Your task to perform on an android device: Open settings Image 0: 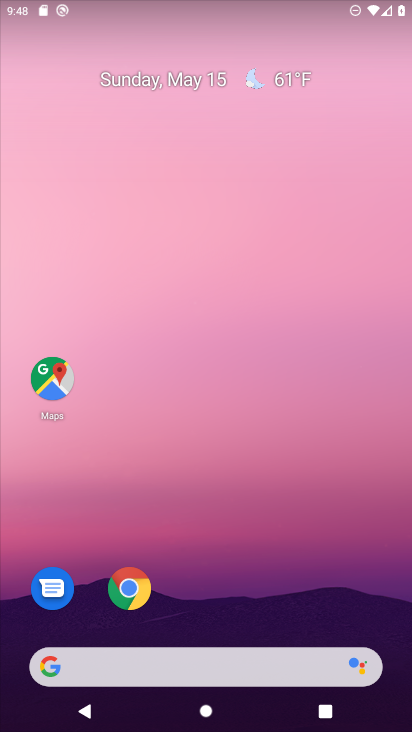
Step 0: drag from (200, 591) to (250, 393)
Your task to perform on an android device: Open settings Image 1: 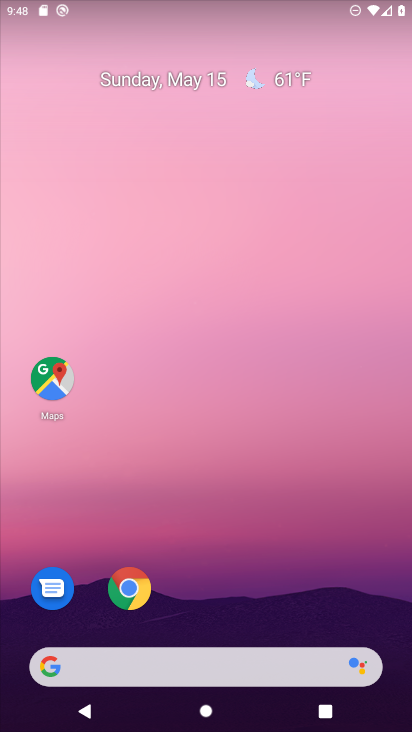
Step 1: drag from (234, 615) to (398, 14)
Your task to perform on an android device: Open settings Image 2: 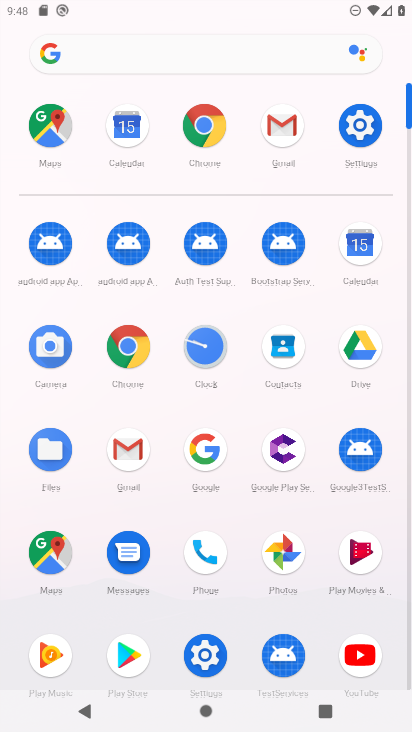
Step 2: click (201, 655)
Your task to perform on an android device: Open settings Image 3: 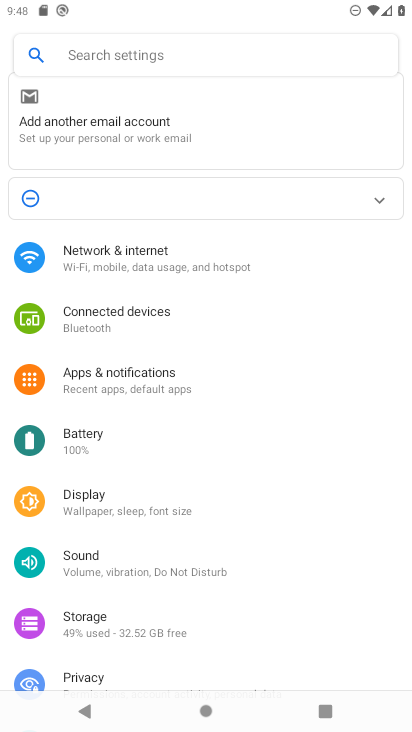
Step 3: task complete